Your task to perform on an android device: delete browsing data in the chrome app Image 0: 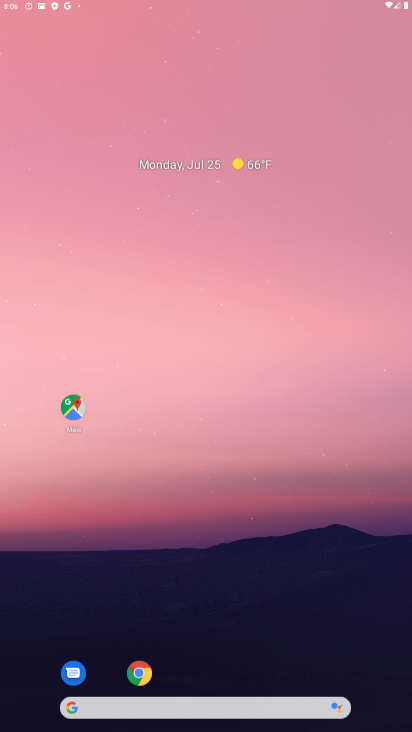
Step 0: click (265, 255)
Your task to perform on an android device: delete browsing data in the chrome app Image 1: 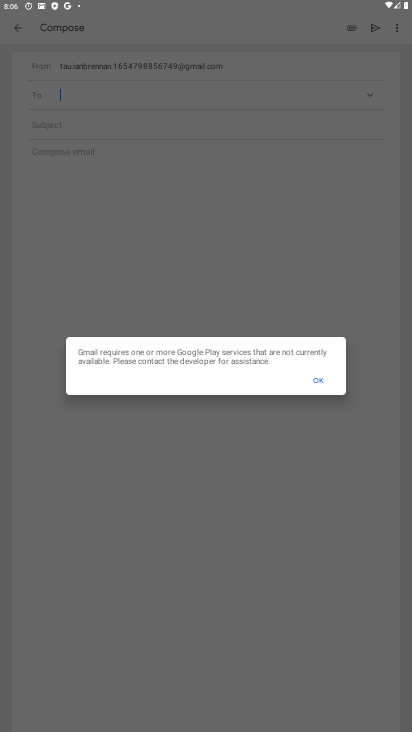
Step 1: drag from (179, 394) to (203, 210)
Your task to perform on an android device: delete browsing data in the chrome app Image 2: 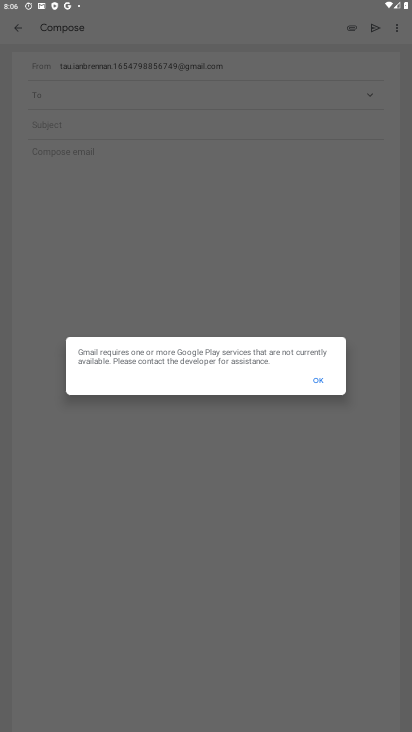
Step 2: press home button
Your task to perform on an android device: delete browsing data in the chrome app Image 3: 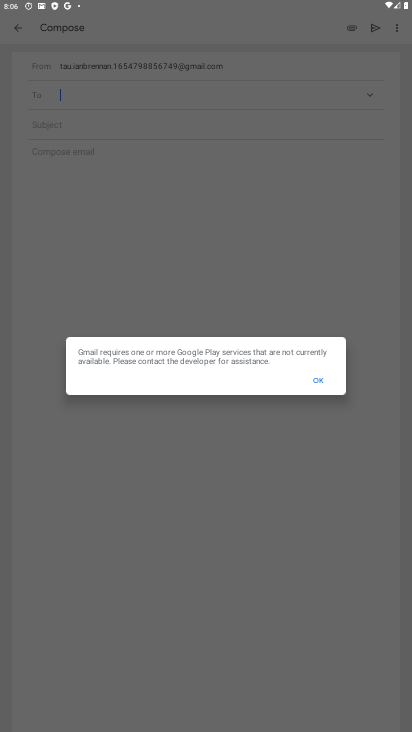
Step 3: press home button
Your task to perform on an android device: delete browsing data in the chrome app Image 4: 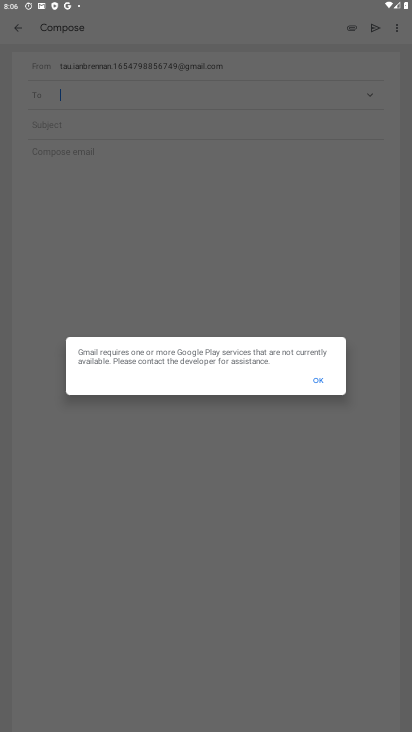
Step 4: drag from (239, 423) to (347, 26)
Your task to perform on an android device: delete browsing data in the chrome app Image 5: 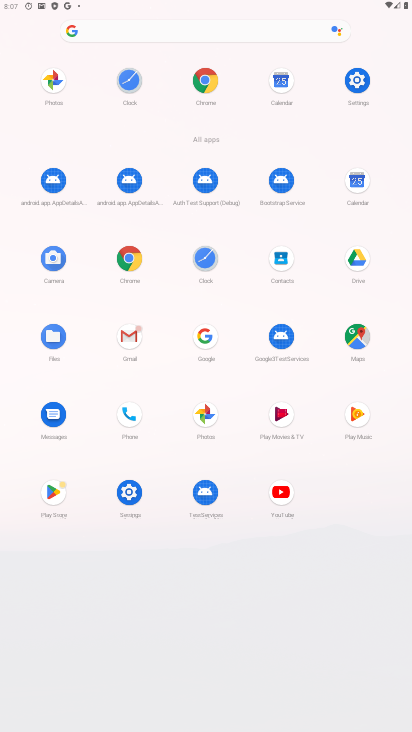
Step 5: click (355, 86)
Your task to perform on an android device: delete browsing data in the chrome app Image 6: 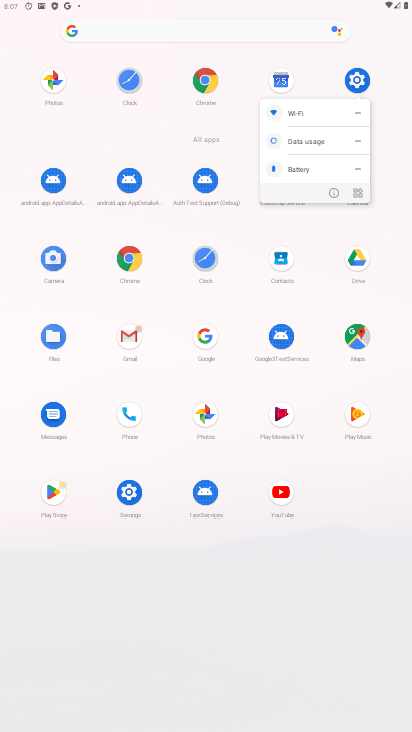
Step 6: click (127, 275)
Your task to perform on an android device: delete browsing data in the chrome app Image 7: 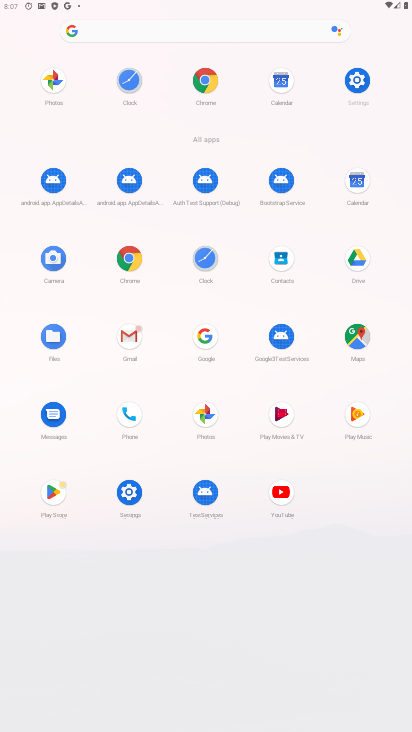
Step 7: click (127, 264)
Your task to perform on an android device: delete browsing data in the chrome app Image 8: 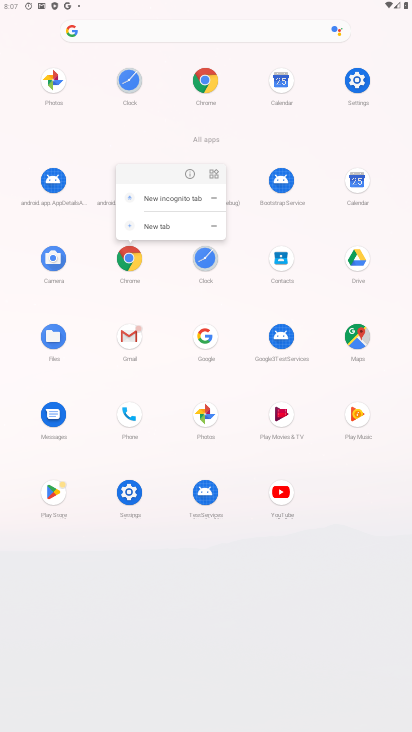
Step 8: click (140, 252)
Your task to perform on an android device: delete browsing data in the chrome app Image 9: 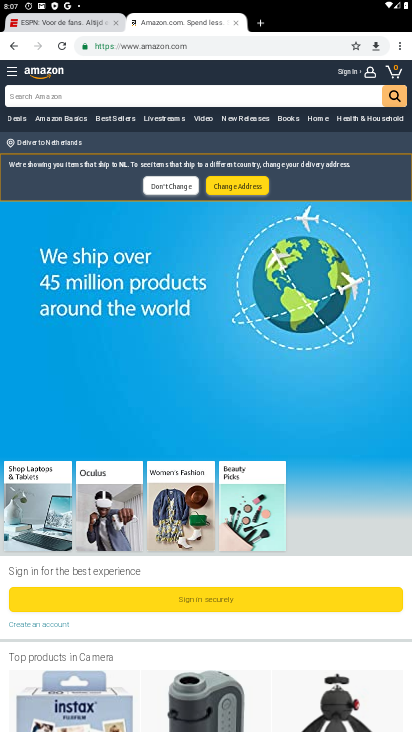
Step 9: drag from (399, 43) to (323, 141)
Your task to perform on an android device: delete browsing data in the chrome app Image 10: 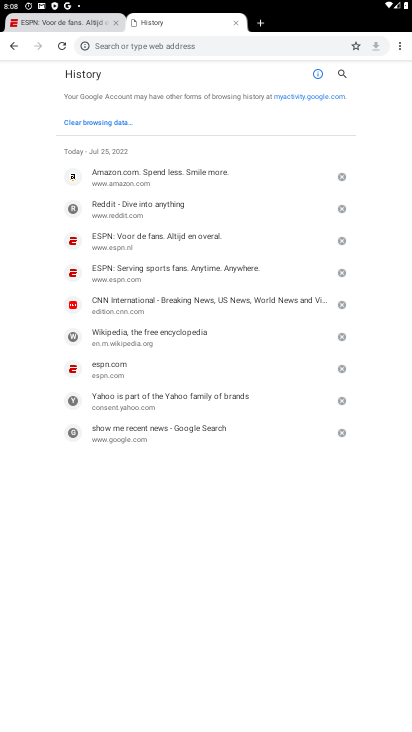
Step 10: click (79, 125)
Your task to perform on an android device: delete browsing data in the chrome app Image 11: 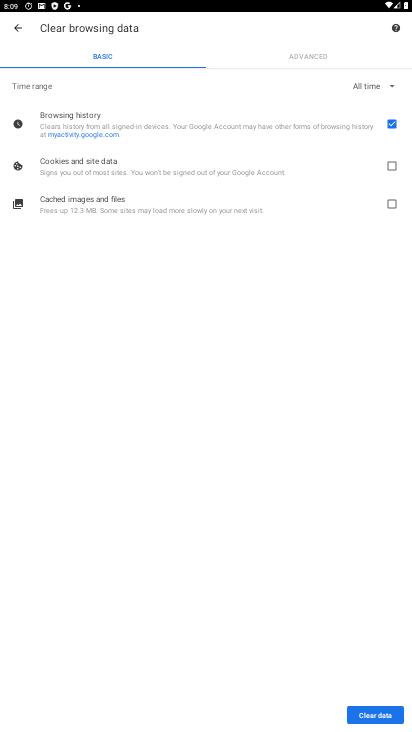
Step 11: drag from (119, 342) to (159, 85)
Your task to perform on an android device: delete browsing data in the chrome app Image 12: 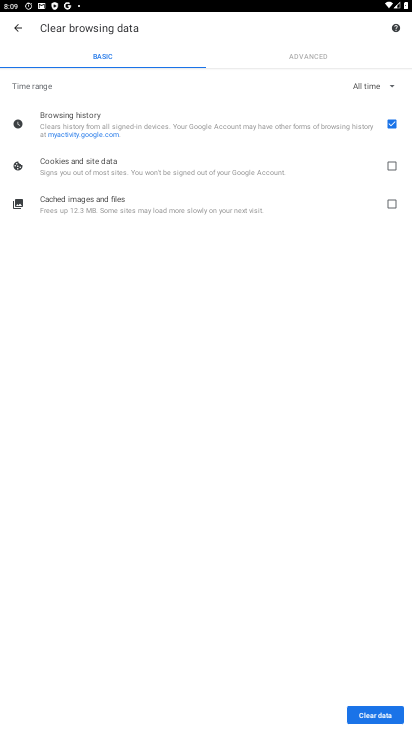
Step 12: click (372, 714)
Your task to perform on an android device: delete browsing data in the chrome app Image 13: 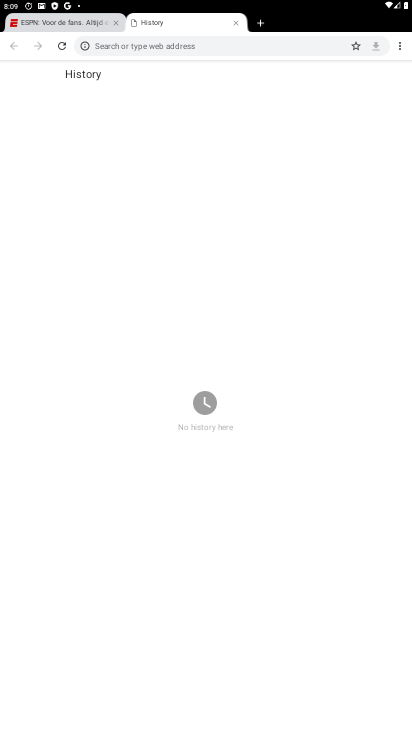
Step 13: task complete